Your task to perform on an android device: visit the assistant section in the google photos Image 0: 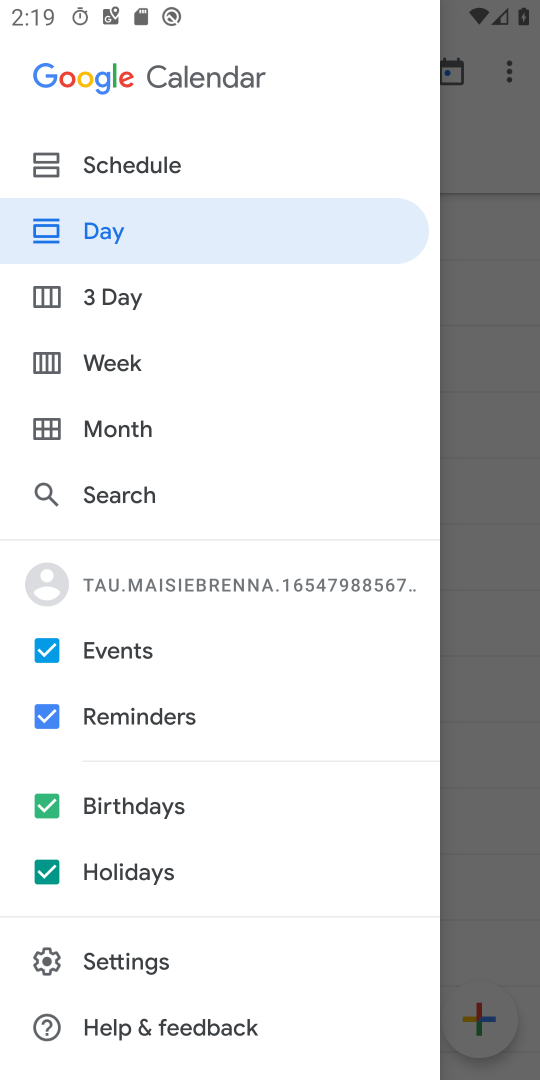
Step 0: press home button
Your task to perform on an android device: visit the assistant section in the google photos Image 1: 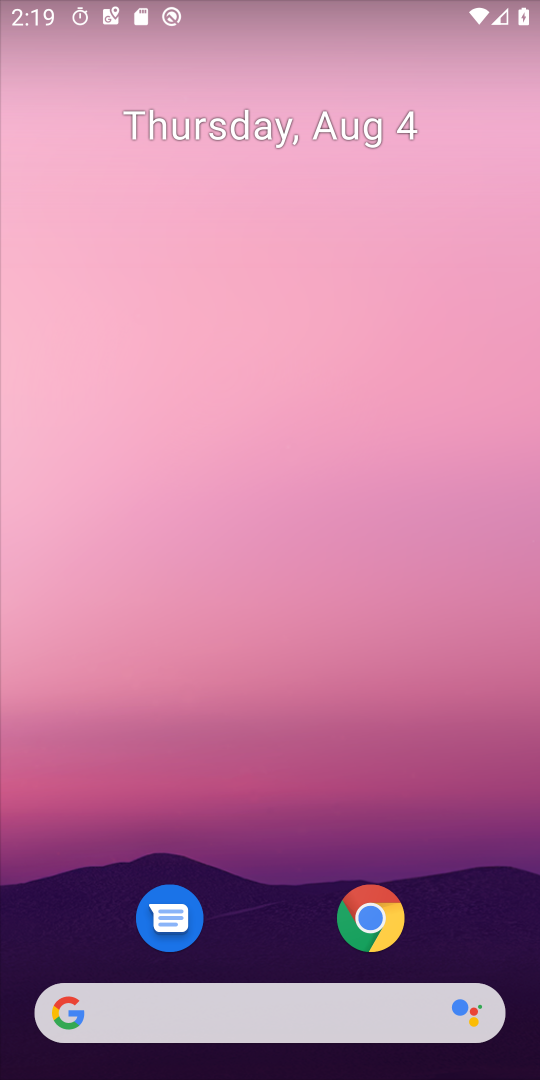
Step 1: drag from (258, 937) to (270, 354)
Your task to perform on an android device: visit the assistant section in the google photos Image 2: 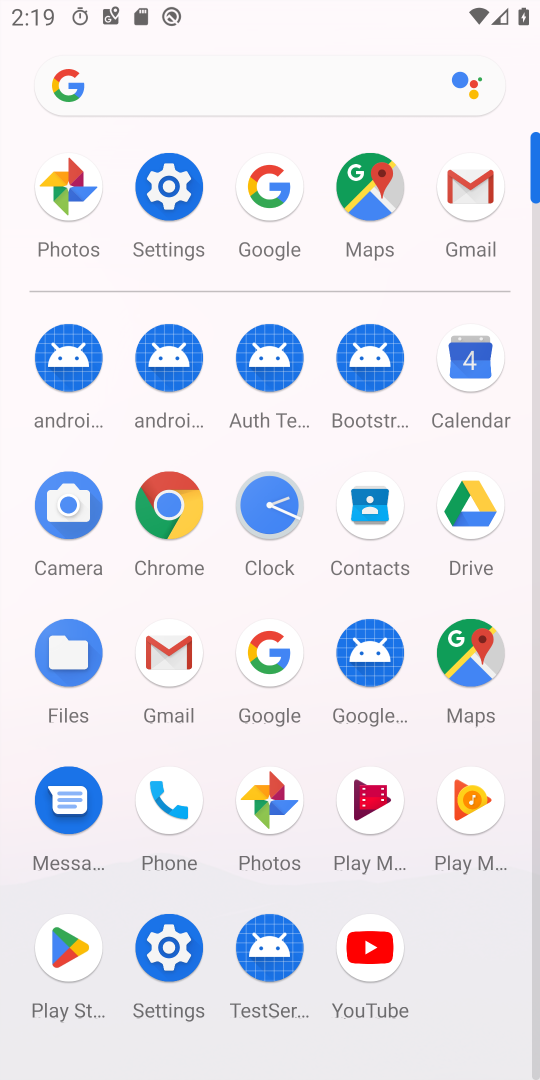
Step 2: click (88, 221)
Your task to perform on an android device: visit the assistant section in the google photos Image 3: 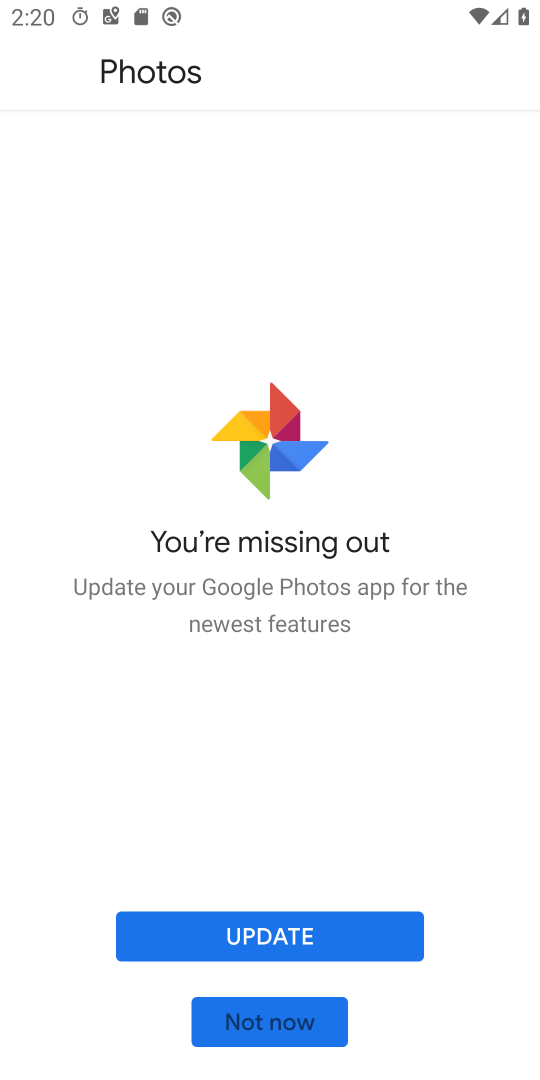
Step 3: click (290, 1036)
Your task to perform on an android device: visit the assistant section in the google photos Image 4: 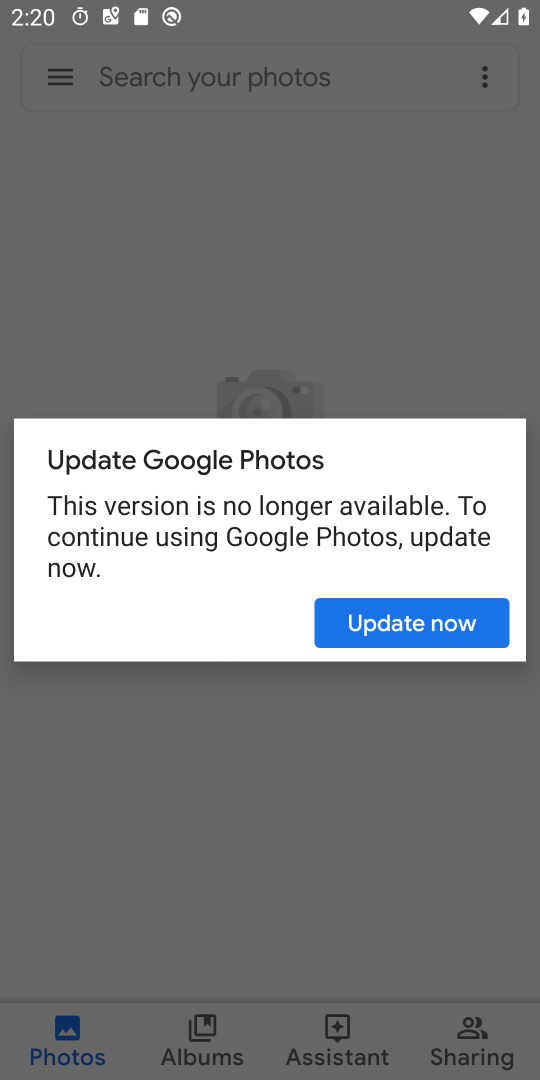
Step 4: click (409, 616)
Your task to perform on an android device: visit the assistant section in the google photos Image 5: 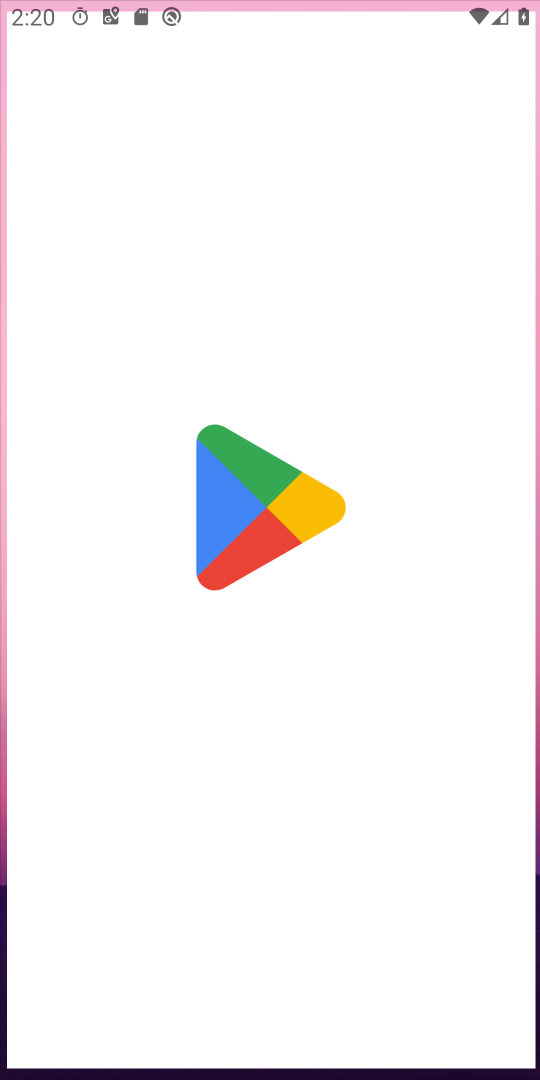
Step 5: click (333, 1048)
Your task to perform on an android device: visit the assistant section in the google photos Image 6: 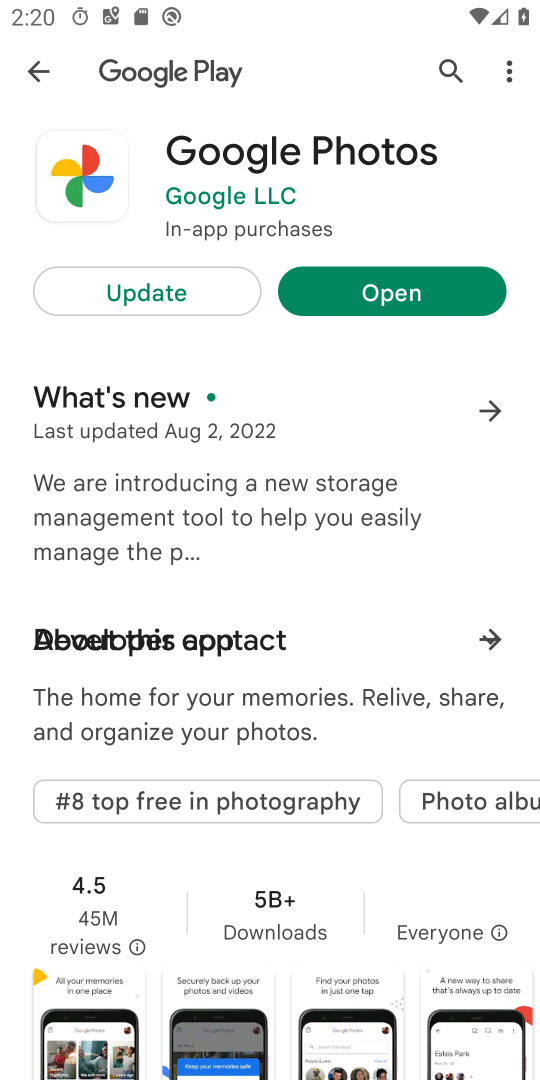
Step 6: click (394, 298)
Your task to perform on an android device: visit the assistant section in the google photos Image 7: 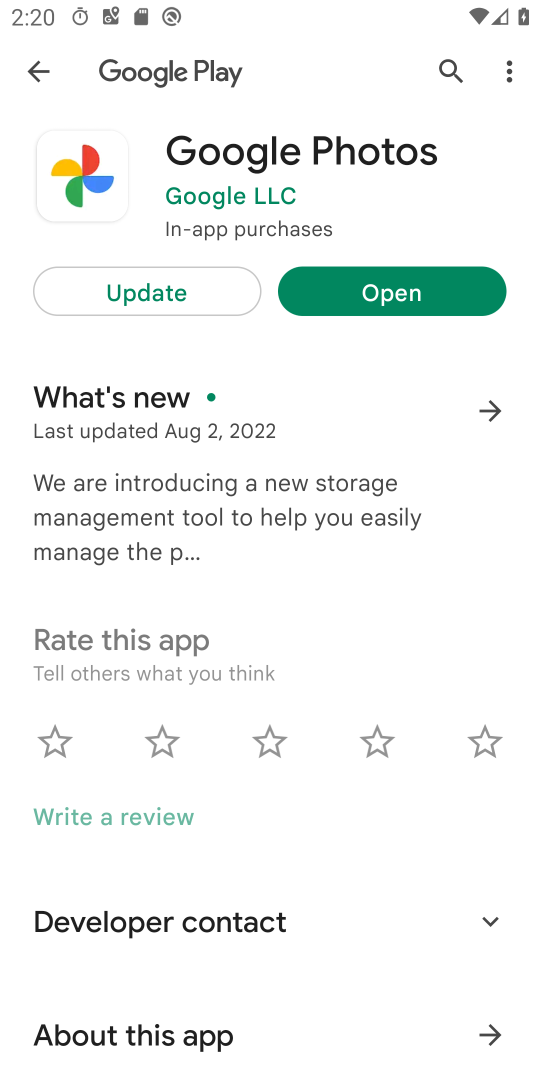
Step 7: click (394, 298)
Your task to perform on an android device: visit the assistant section in the google photos Image 8: 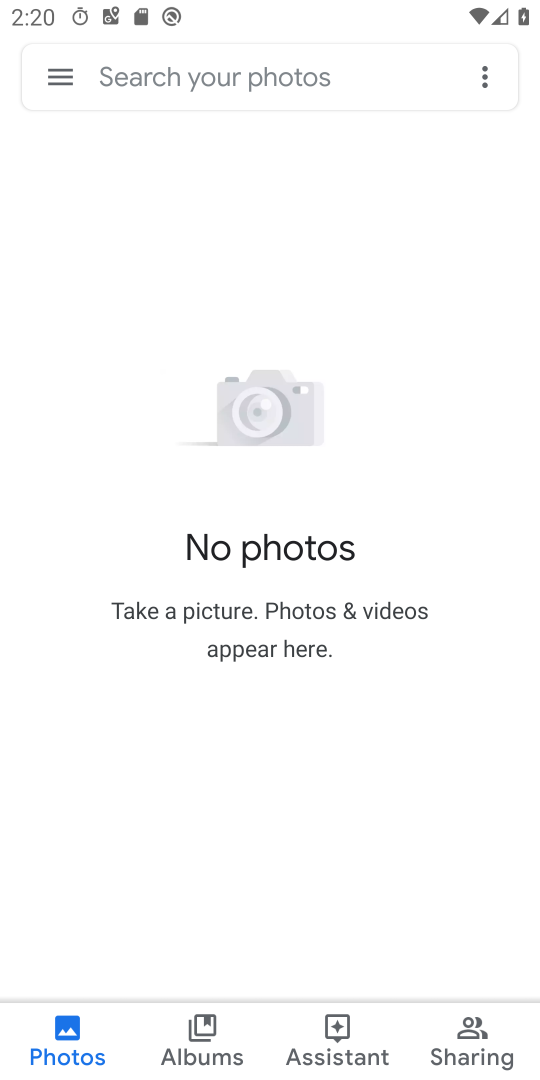
Step 8: click (333, 1043)
Your task to perform on an android device: visit the assistant section in the google photos Image 9: 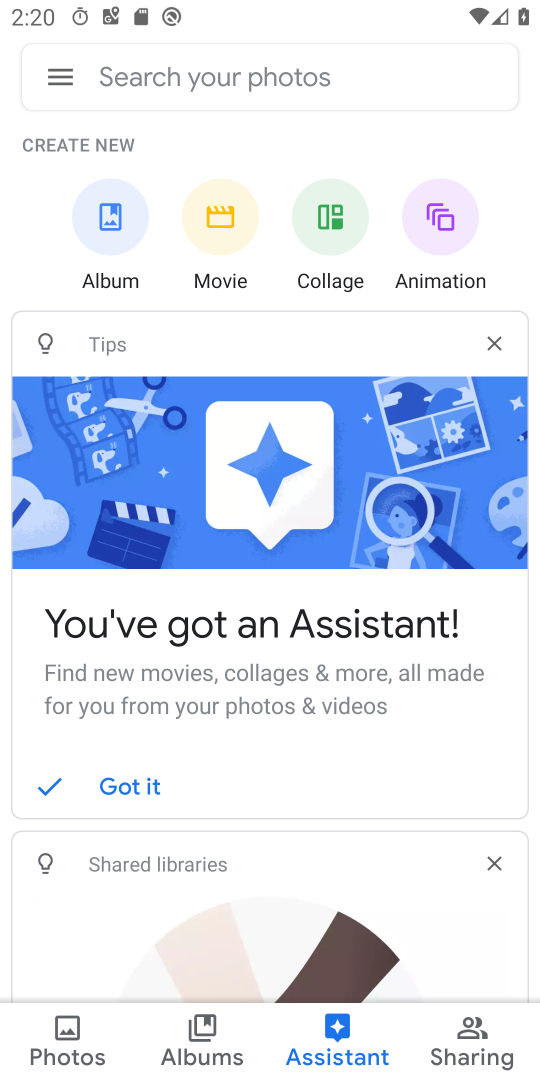
Step 9: task complete